Your task to perform on an android device: make emails show in primary in the gmail app Image 0: 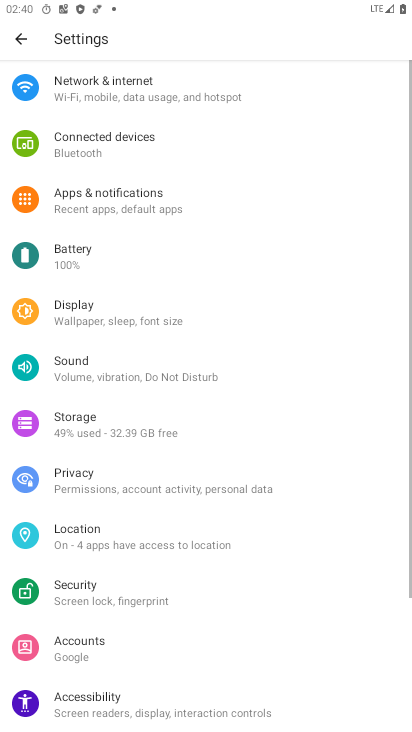
Step 0: press home button
Your task to perform on an android device: make emails show in primary in the gmail app Image 1: 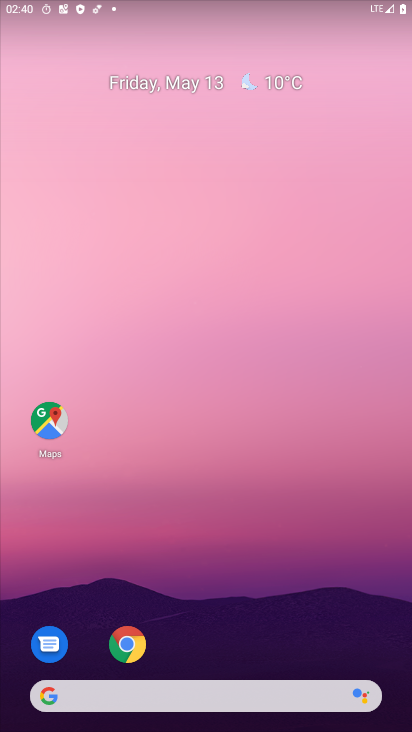
Step 1: drag from (308, 625) to (287, 6)
Your task to perform on an android device: make emails show in primary in the gmail app Image 2: 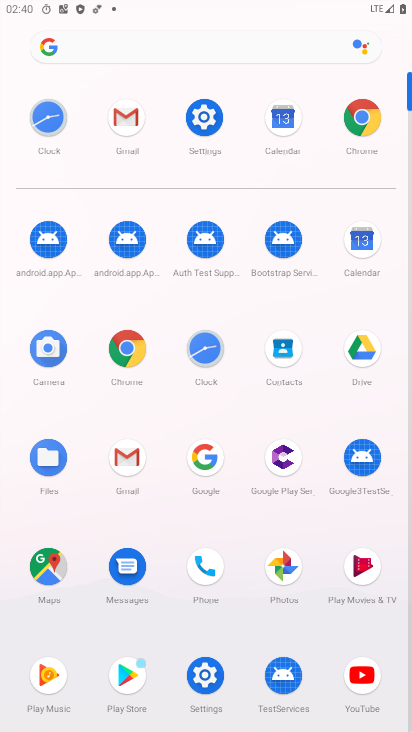
Step 2: click (135, 453)
Your task to perform on an android device: make emails show in primary in the gmail app Image 3: 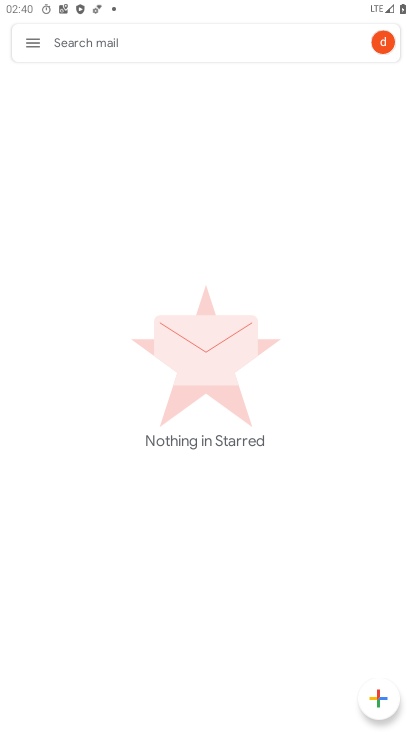
Step 3: click (29, 41)
Your task to perform on an android device: make emails show in primary in the gmail app Image 4: 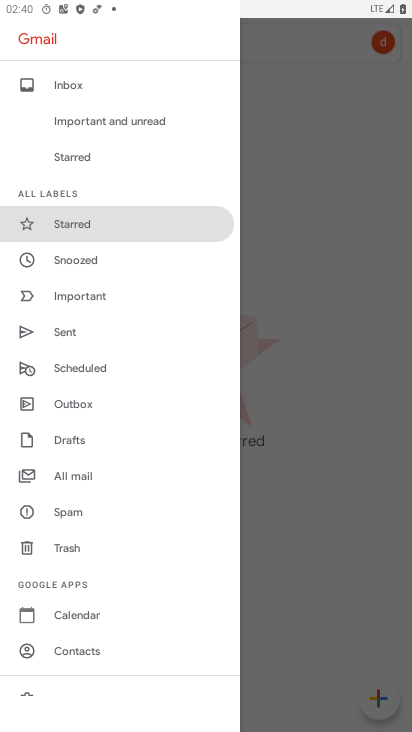
Step 4: drag from (79, 672) to (120, 179)
Your task to perform on an android device: make emails show in primary in the gmail app Image 5: 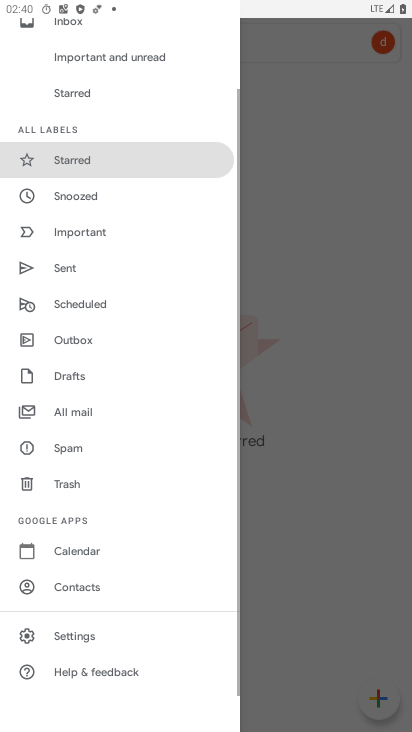
Step 5: click (105, 639)
Your task to perform on an android device: make emails show in primary in the gmail app Image 6: 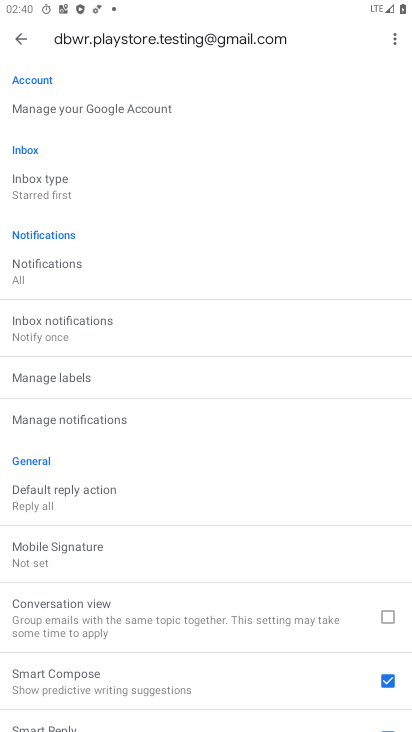
Step 6: drag from (129, 216) to (110, 684)
Your task to perform on an android device: make emails show in primary in the gmail app Image 7: 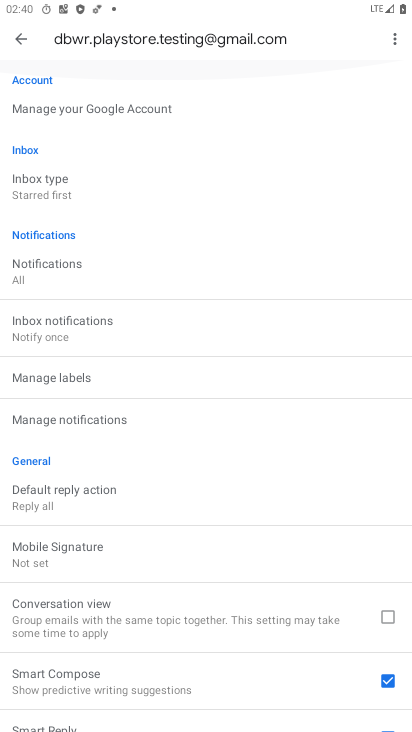
Step 7: click (77, 195)
Your task to perform on an android device: make emails show in primary in the gmail app Image 8: 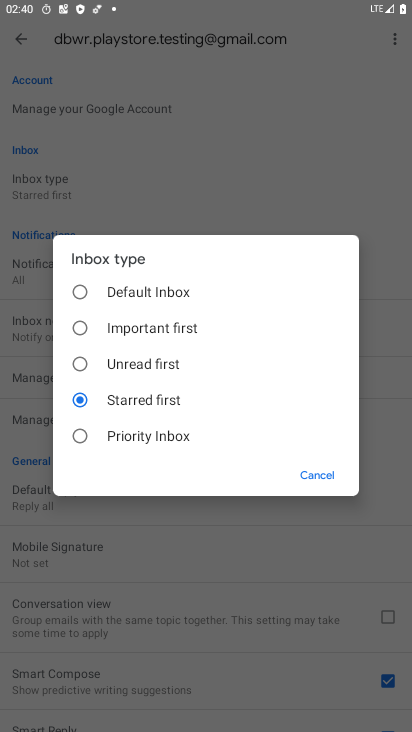
Step 8: click (82, 285)
Your task to perform on an android device: make emails show in primary in the gmail app Image 9: 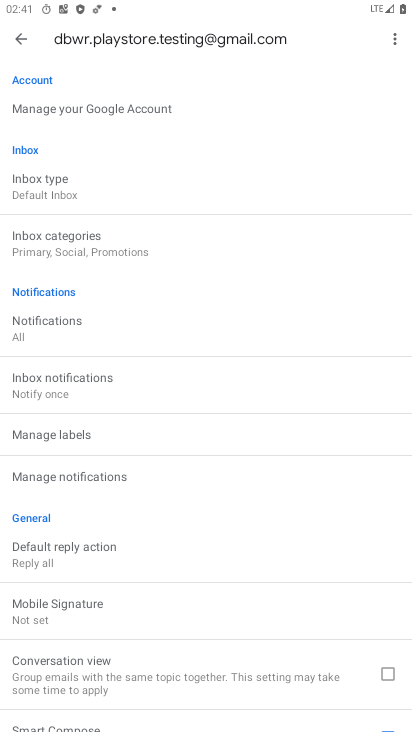
Step 9: press back button
Your task to perform on an android device: make emails show in primary in the gmail app Image 10: 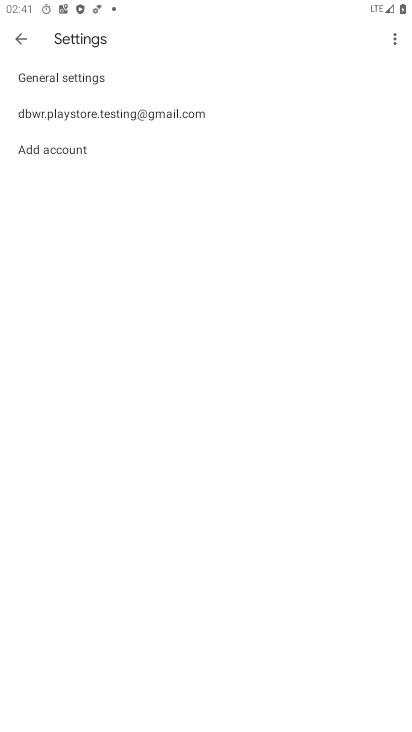
Step 10: press back button
Your task to perform on an android device: make emails show in primary in the gmail app Image 11: 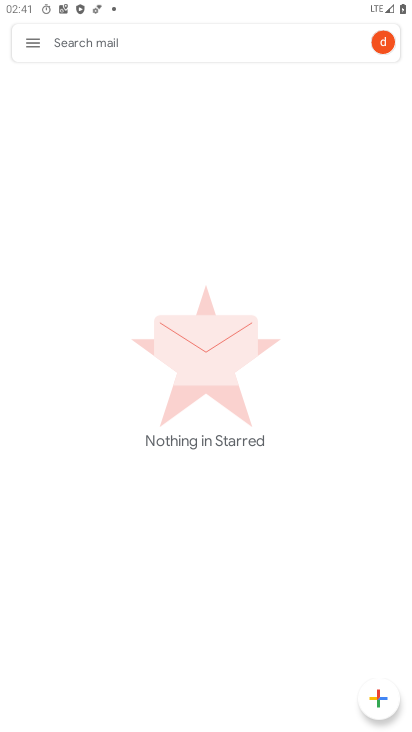
Step 11: click (36, 45)
Your task to perform on an android device: make emails show in primary in the gmail app Image 12: 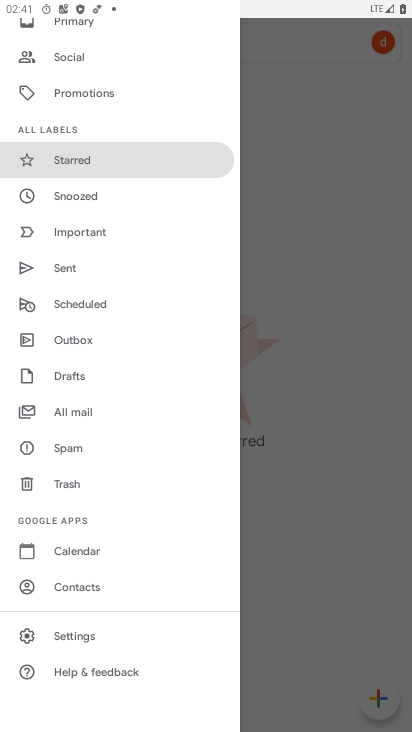
Step 12: drag from (73, 100) to (56, 675)
Your task to perform on an android device: make emails show in primary in the gmail app Image 13: 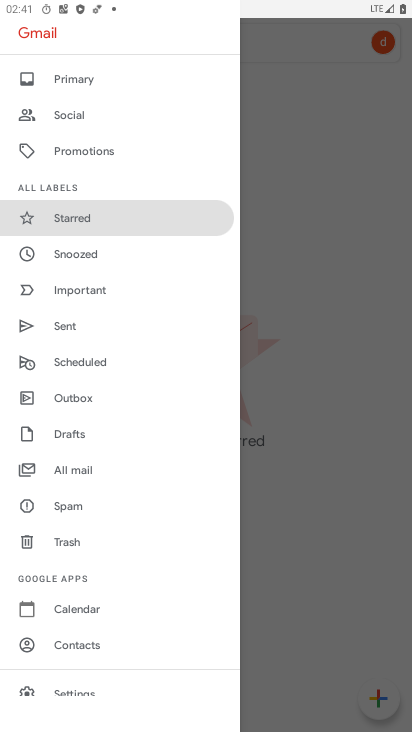
Step 13: click (113, 72)
Your task to perform on an android device: make emails show in primary in the gmail app Image 14: 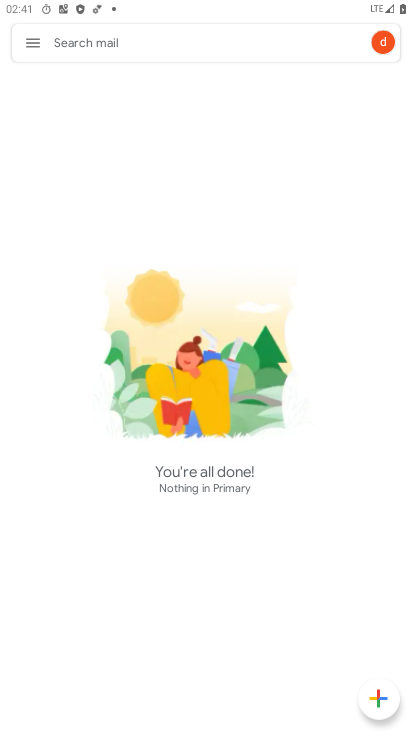
Step 14: task complete